Your task to perform on an android device: turn on location history Image 0: 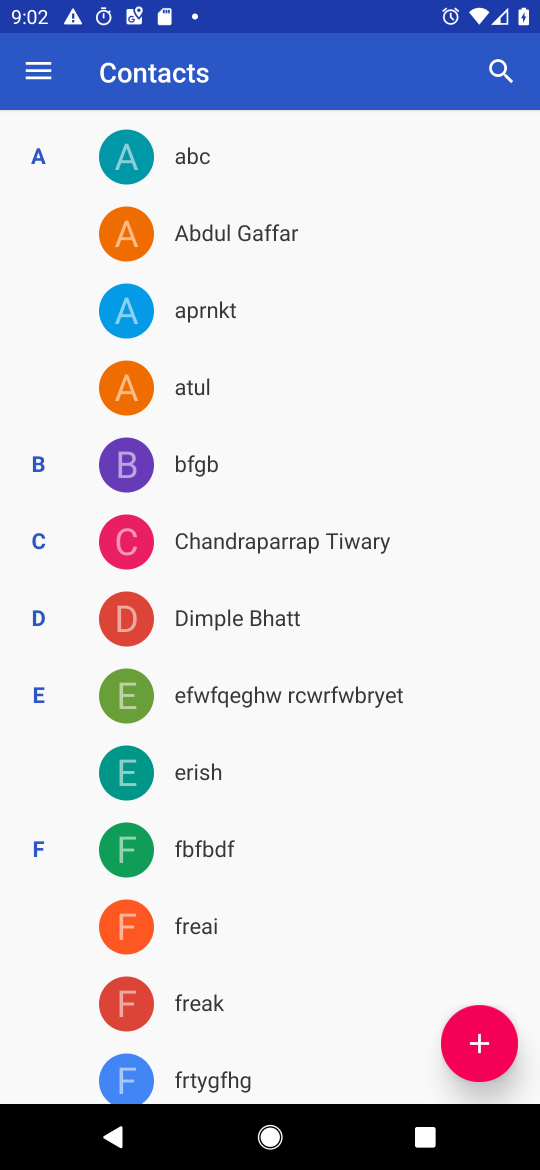
Step 0: drag from (327, 935) to (382, 273)
Your task to perform on an android device: turn on location history Image 1: 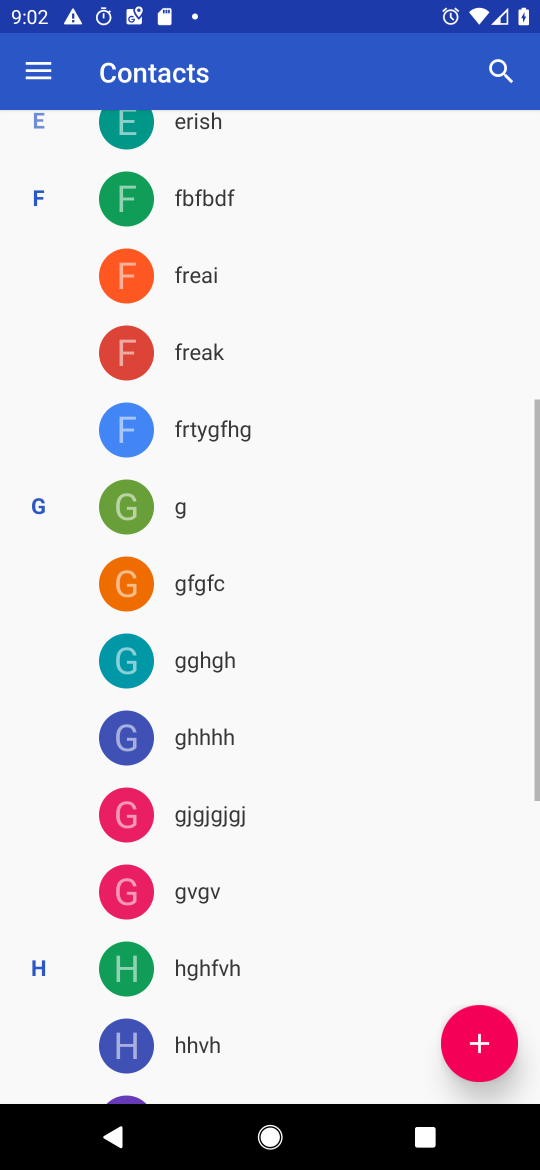
Step 1: click (408, 464)
Your task to perform on an android device: turn on location history Image 2: 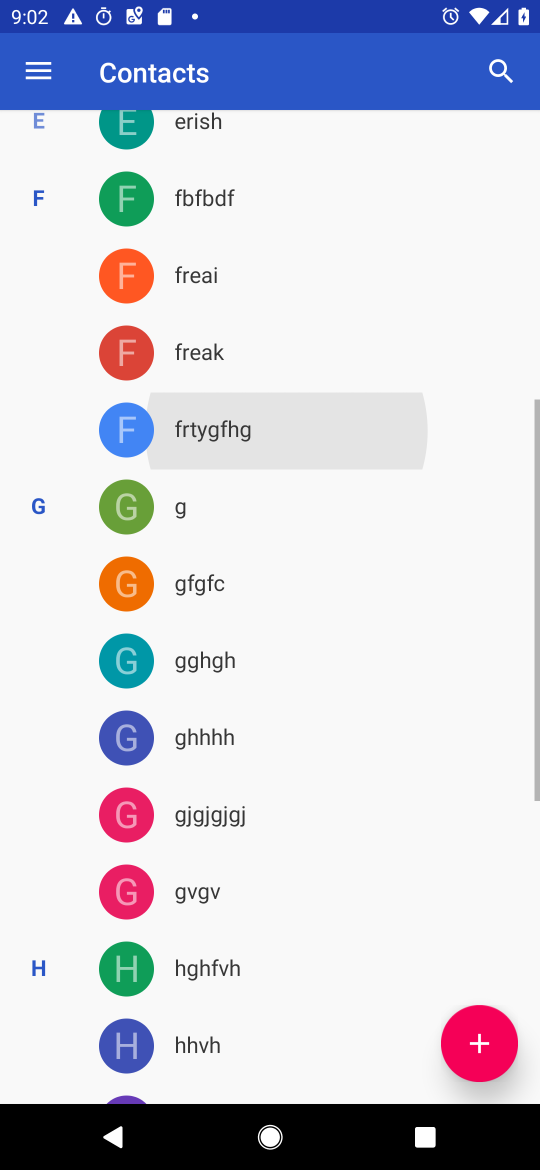
Step 2: press home button
Your task to perform on an android device: turn on location history Image 3: 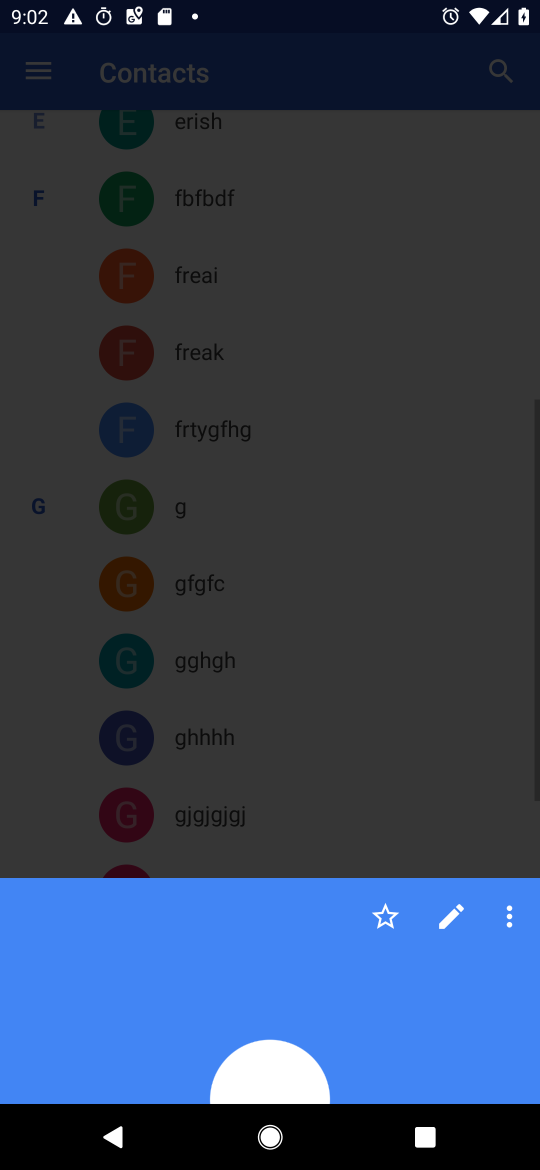
Step 3: click (336, 490)
Your task to perform on an android device: turn on location history Image 4: 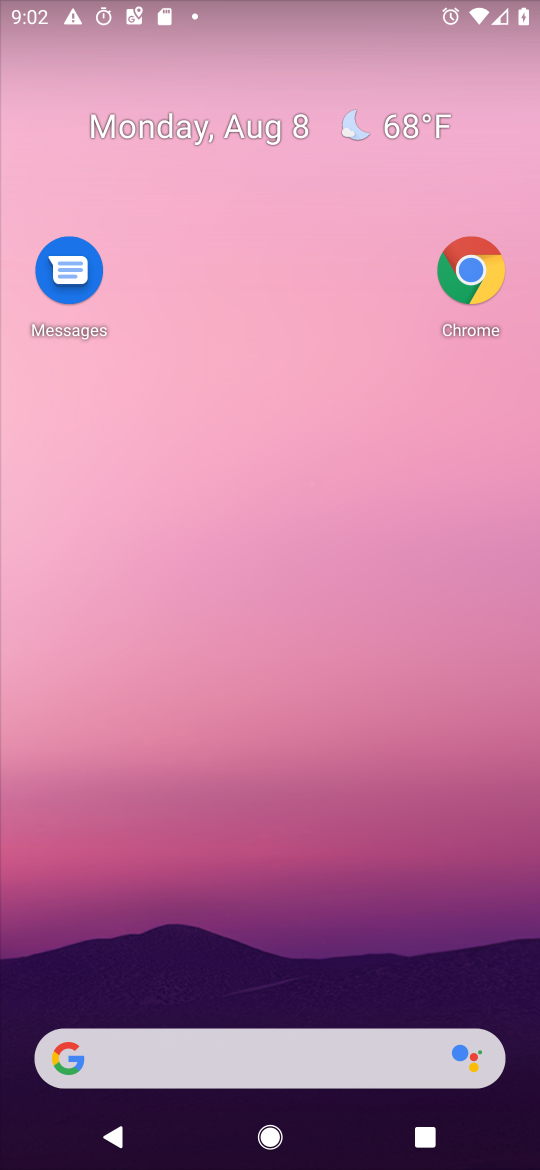
Step 4: drag from (284, 881) to (321, 2)
Your task to perform on an android device: turn on location history Image 5: 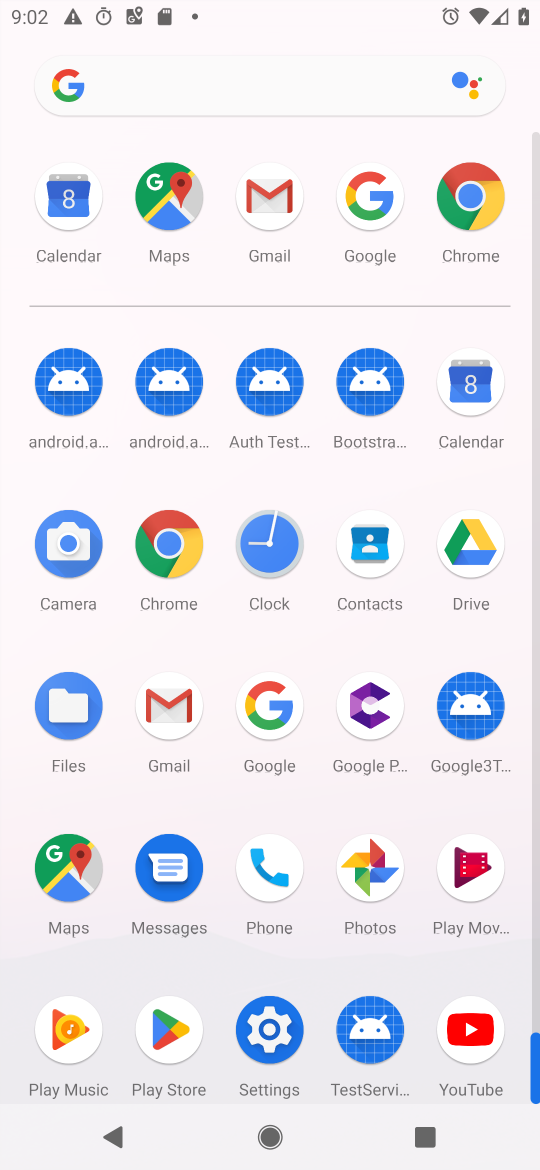
Step 5: click (269, 1020)
Your task to perform on an android device: turn on location history Image 6: 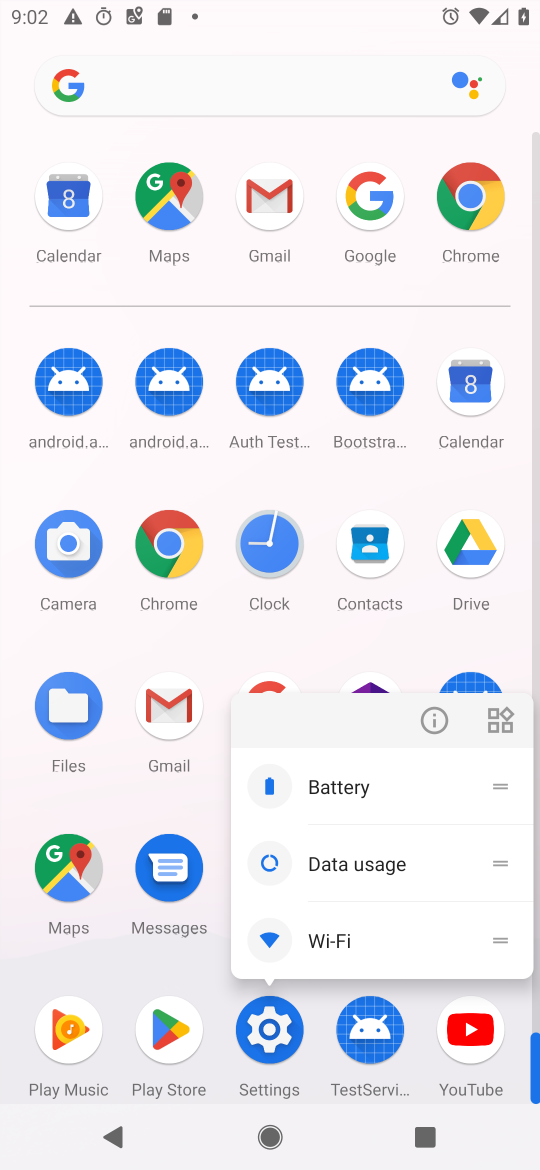
Step 6: click (433, 714)
Your task to perform on an android device: turn on location history Image 7: 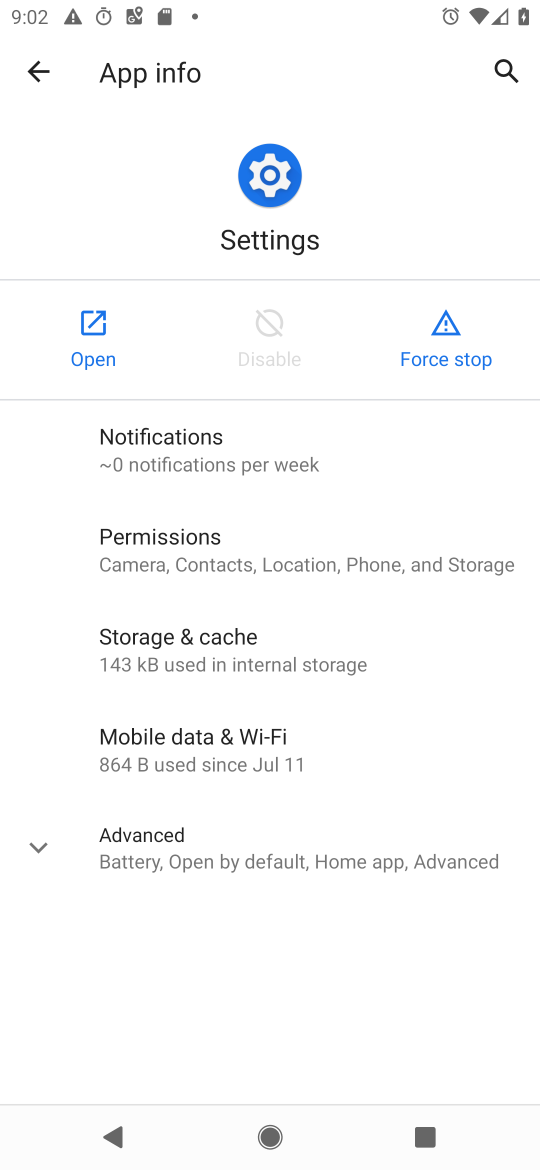
Step 7: click (93, 339)
Your task to perform on an android device: turn on location history Image 8: 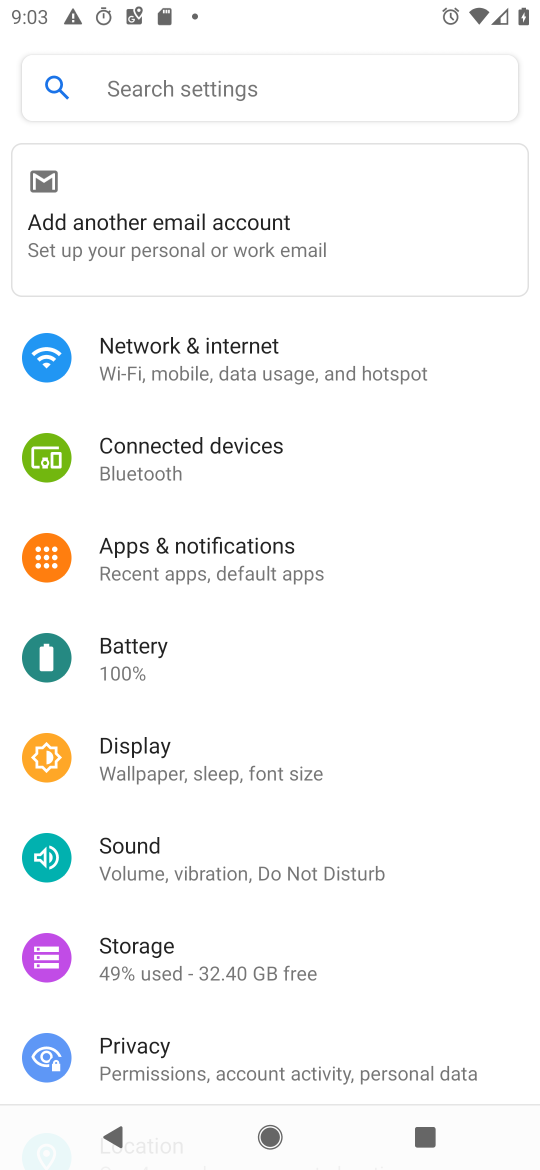
Step 8: drag from (214, 1005) to (325, 3)
Your task to perform on an android device: turn on location history Image 9: 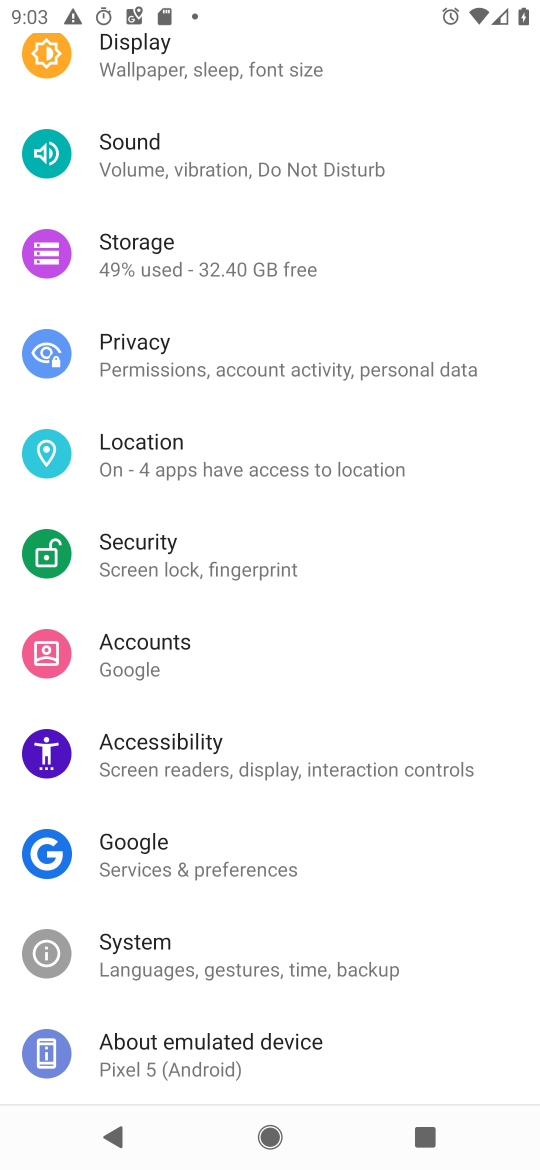
Step 9: drag from (229, 1002) to (381, 305)
Your task to perform on an android device: turn on location history Image 10: 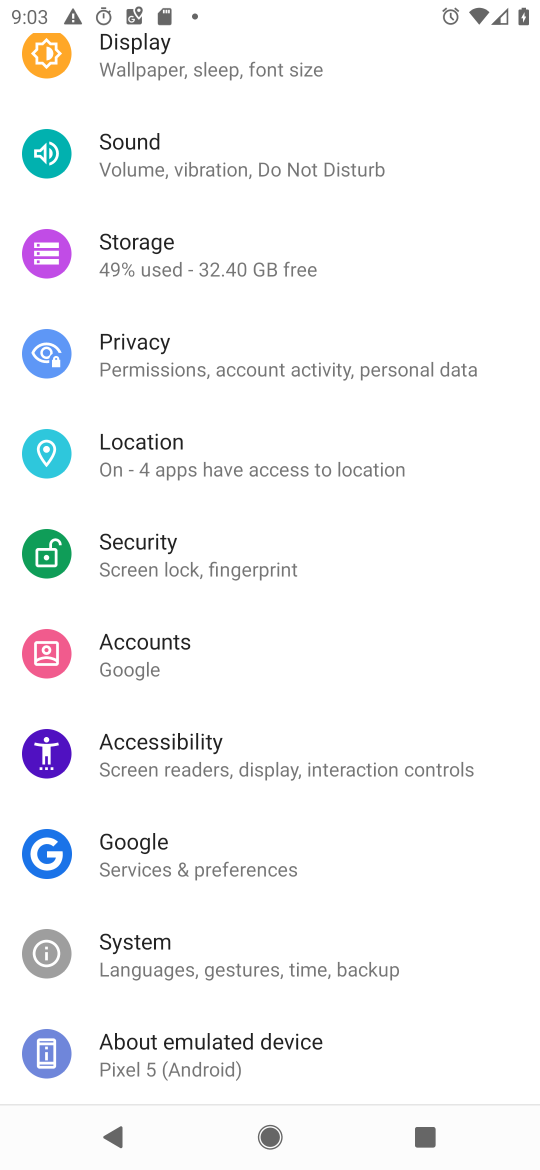
Step 10: click (193, 455)
Your task to perform on an android device: turn on location history Image 11: 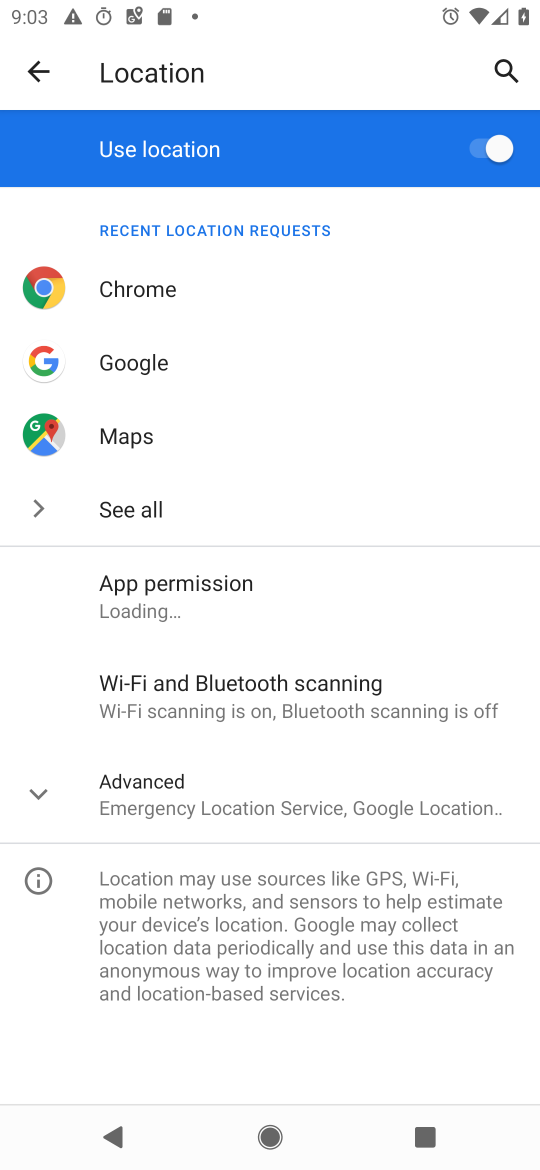
Step 11: click (128, 786)
Your task to perform on an android device: turn on location history Image 12: 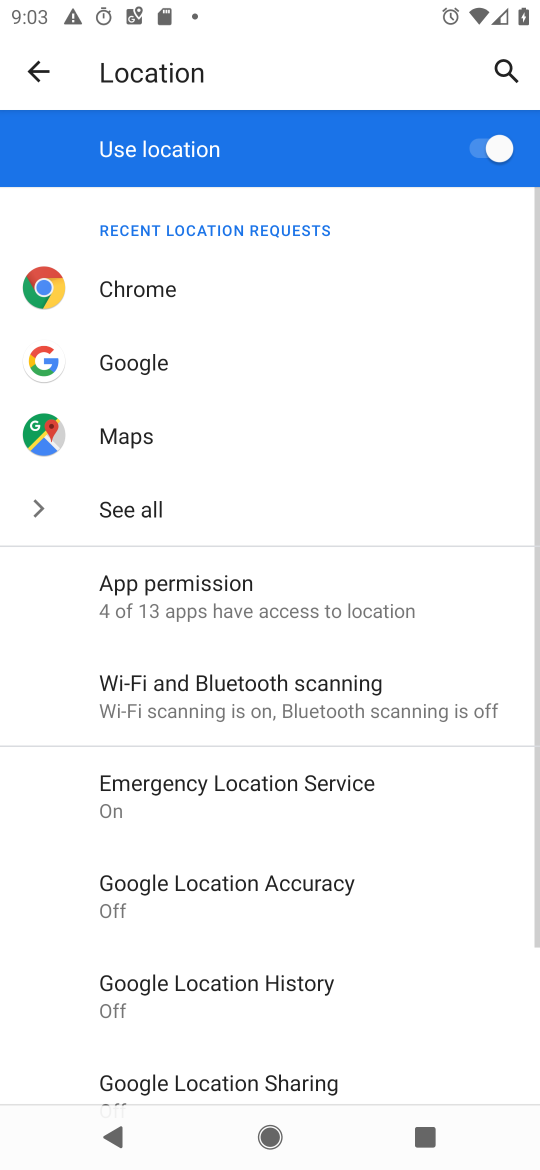
Step 12: click (243, 1000)
Your task to perform on an android device: turn on location history Image 13: 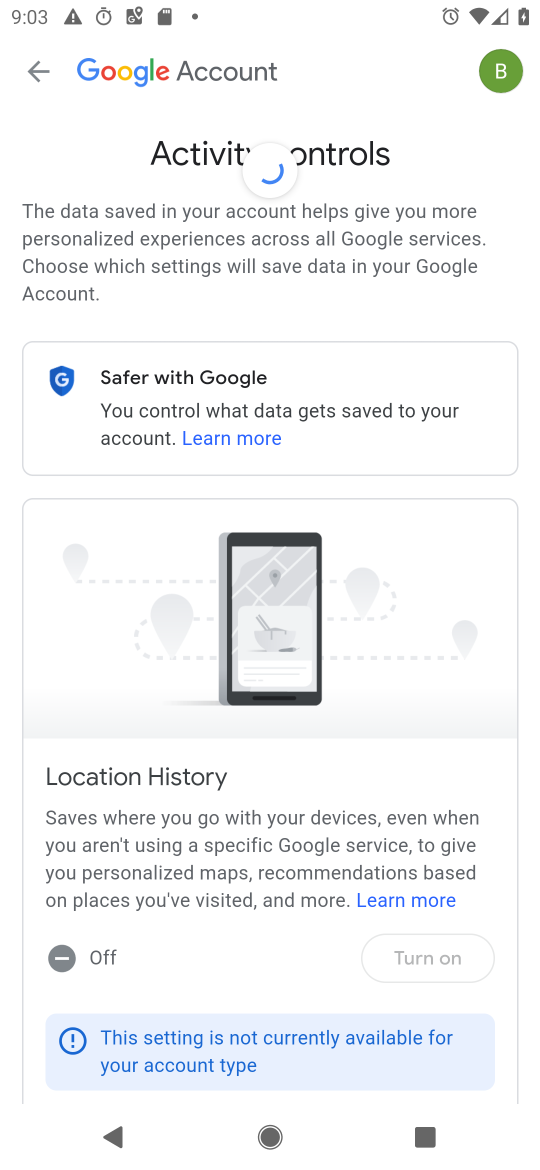
Step 13: task complete